Your task to perform on an android device: check the backup settings in the google photos Image 0: 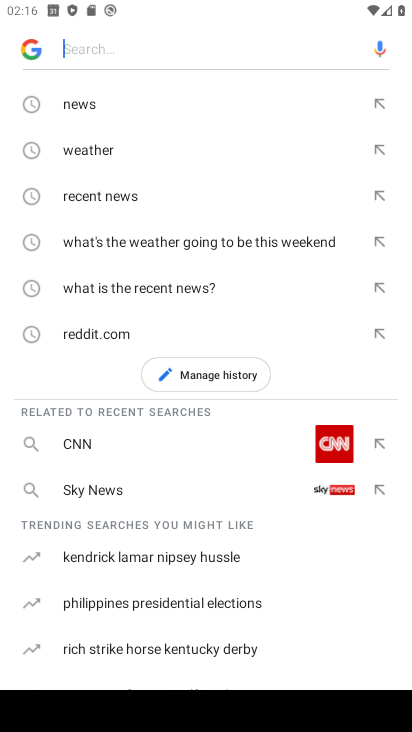
Step 0: press home button
Your task to perform on an android device: check the backup settings in the google photos Image 1: 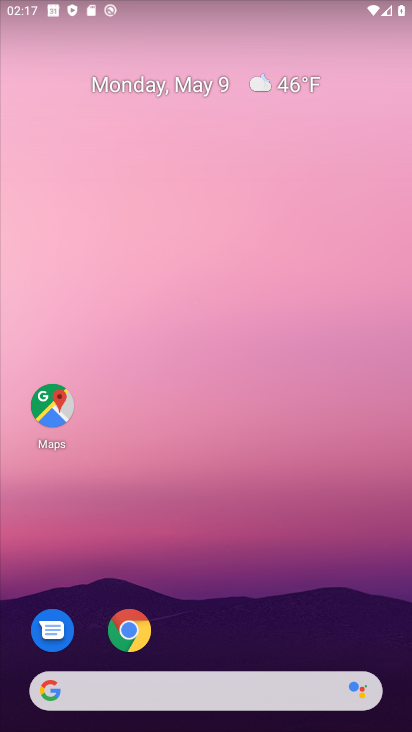
Step 1: drag from (221, 577) to (194, 15)
Your task to perform on an android device: check the backup settings in the google photos Image 2: 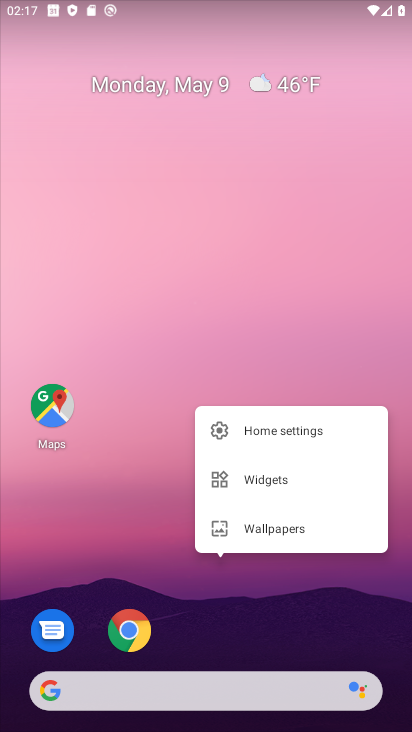
Step 2: drag from (109, 526) to (92, 40)
Your task to perform on an android device: check the backup settings in the google photos Image 3: 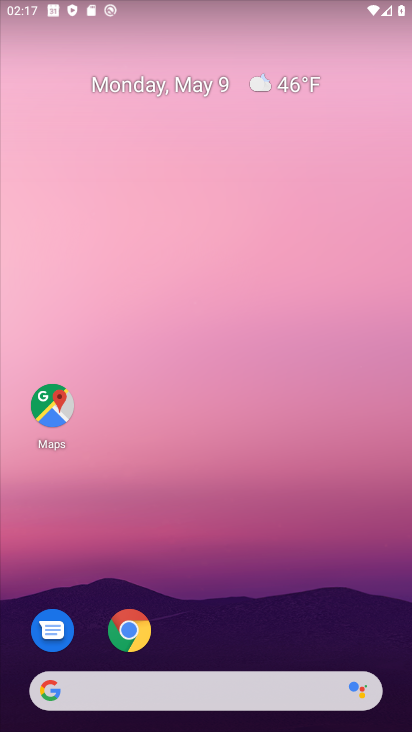
Step 3: drag from (250, 557) to (255, 6)
Your task to perform on an android device: check the backup settings in the google photos Image 4: 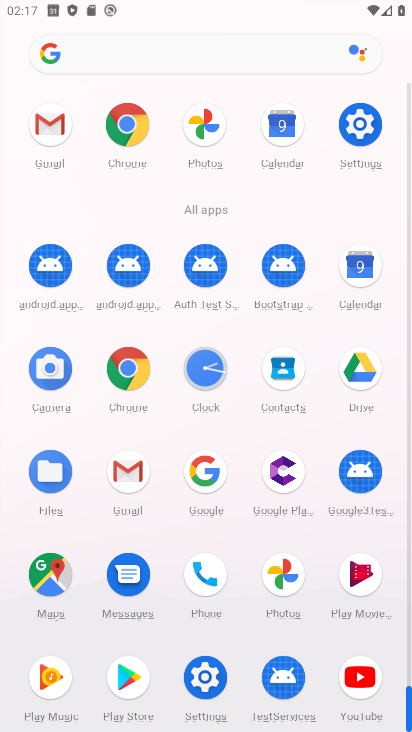
Step 4: click (203, 120)
Your task to perform on an android device: check the backup settings in the google photos Image 5: 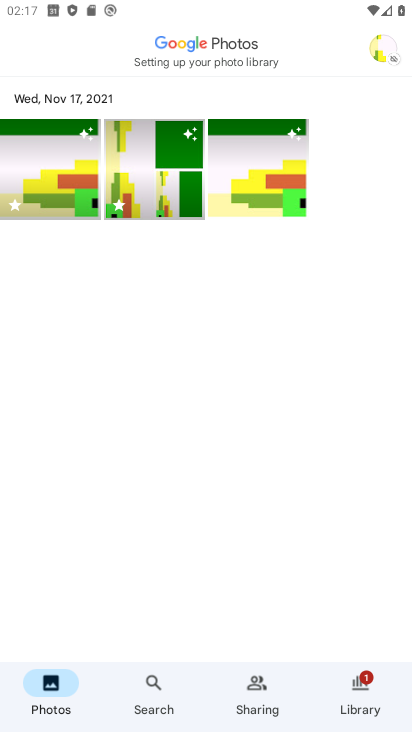
Step 5: click (386, 48)
Your task to perform on an android device: check the backup settings in the google photos Image 6: 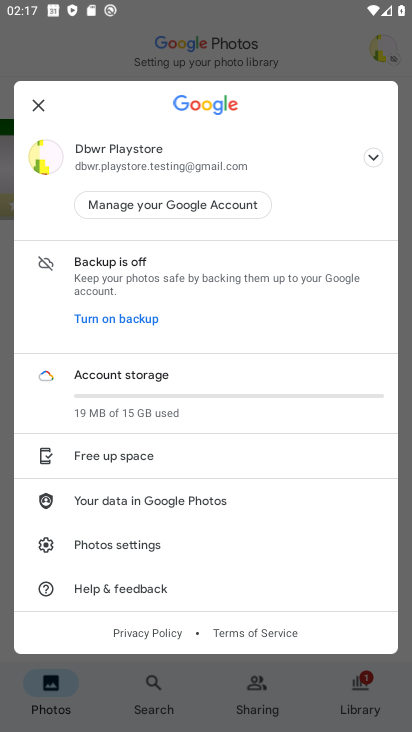
Step 6: click (115, 550)
Your task to perform on an android device: check the backup settings in the google photos Image 7: 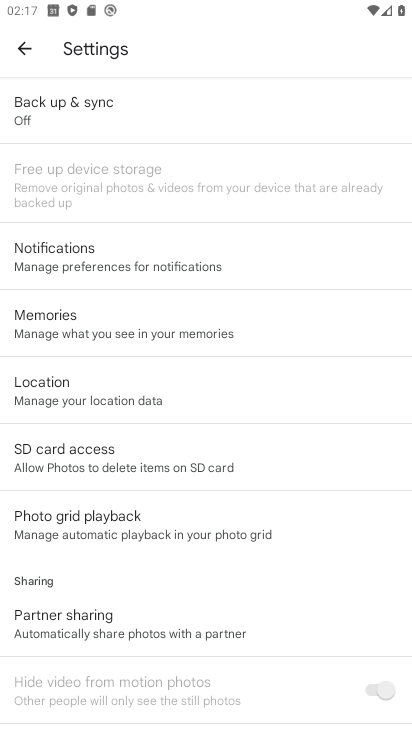
Step 7: click (62, 93)
Your task to perform on an android device: check the backup settings in the google photos Image 8: 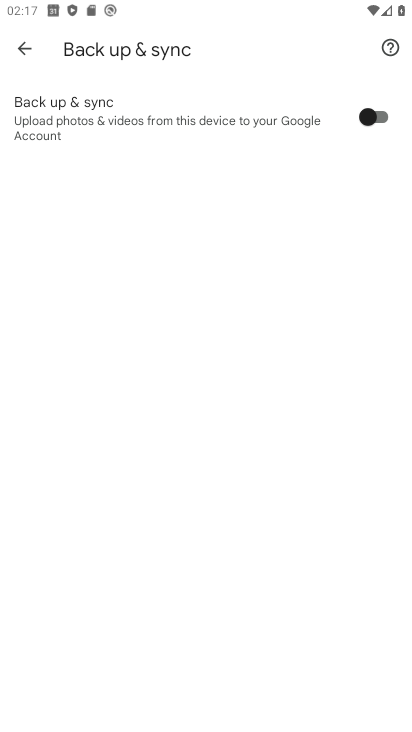
Step 8: task complete